Your task to perform on an android device: set the timer Image 0: 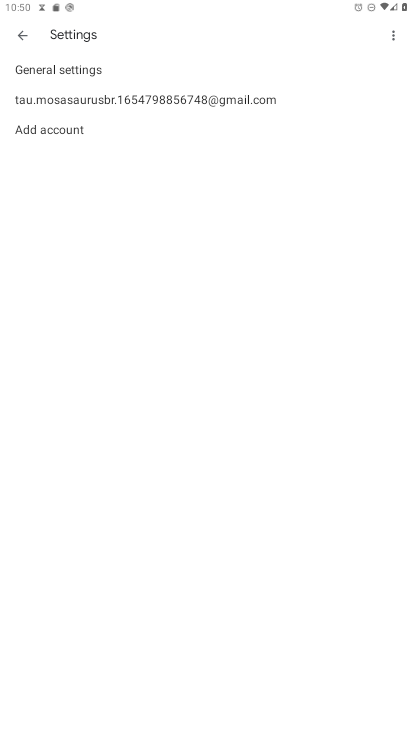
Step 0: press home button
Your task to perform on an android device: set the timer Image 1: 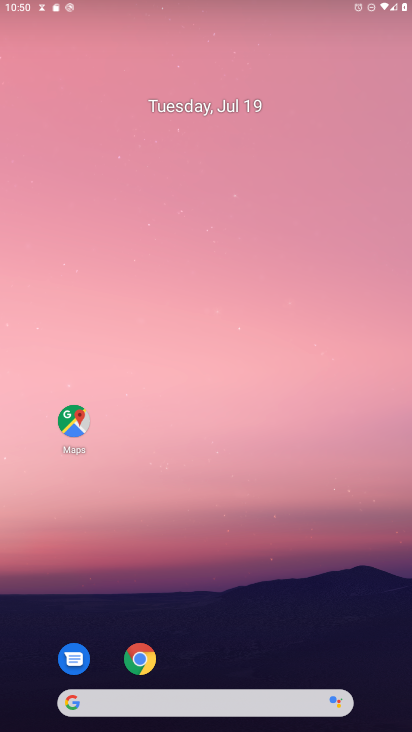
Step 1: drag from (191, 597) to (187, 79)
Your task to perform on an android device: set the timer Image 2: 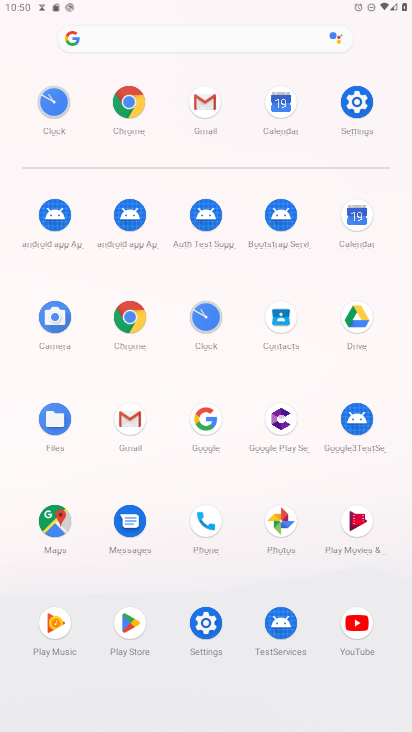
Step 2: click (208, 308)
Your task to perform on an android device: set the timer Image 3: 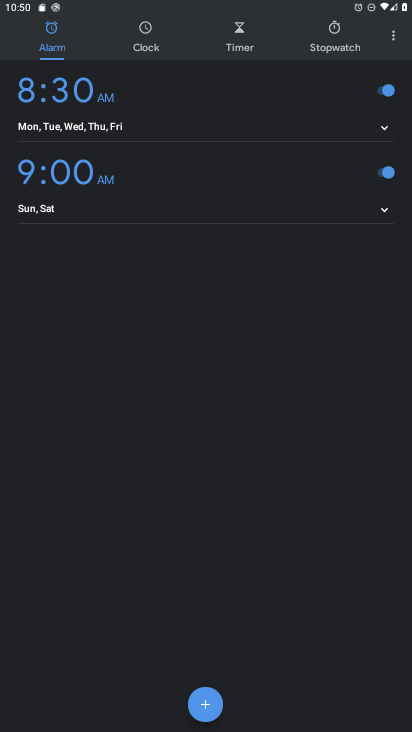
Step 3: click (249, 45)
Your task to perform on an android device: set the timer Image 4: 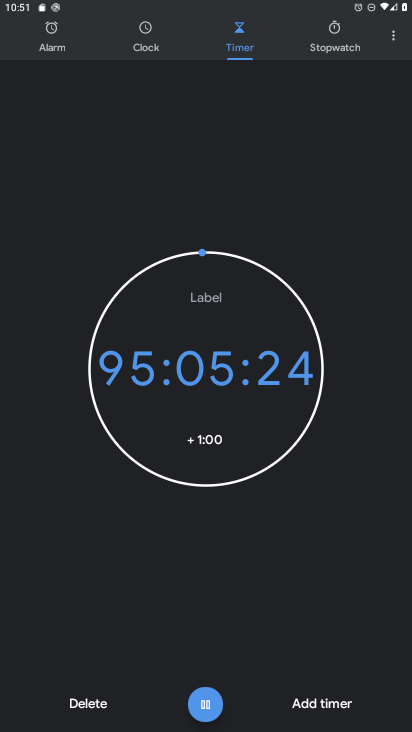
Step 4: task complete